Your task to perform on an android device: toggle priority inbox in the gmail app Image 0: 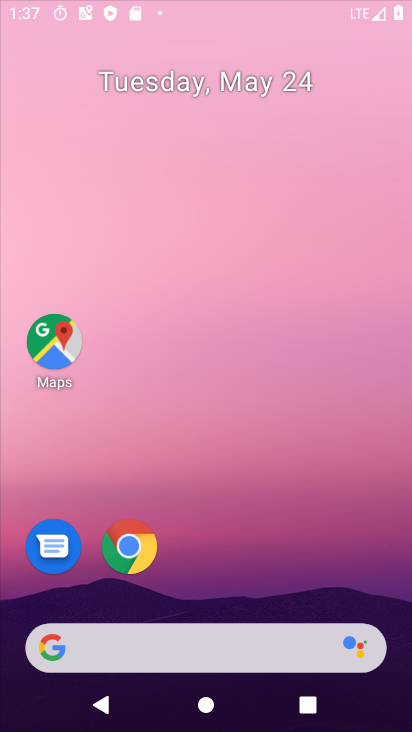
Step 0: drag from (258, 464) to (298, 226)
Your task to perform on an android device: toggle priority inbox in the gmail app Image 1: 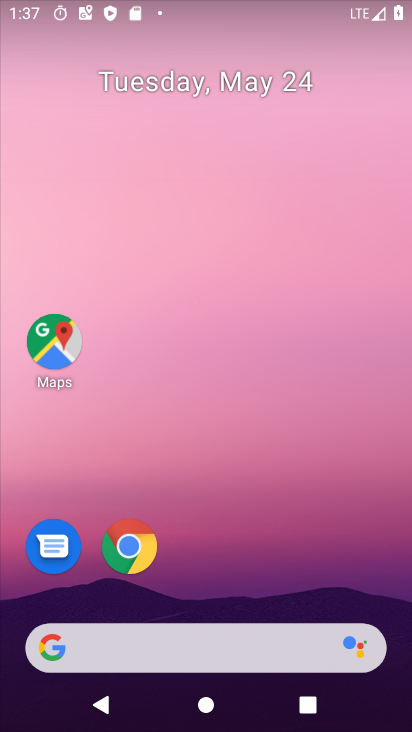
Step 1: drag from (218, 586) to (398, 31)
Your task to perform on an android device: toggle priority inbox in the gmail app Image 2: 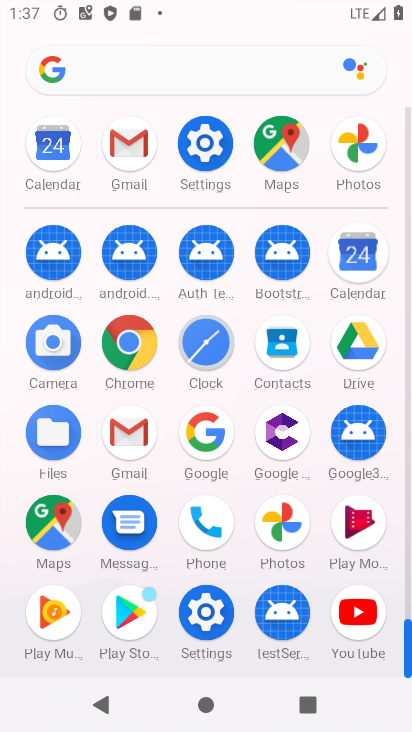
Step 2: click (147, 437)
Your task to perform on an android device: toggle priority inbox in the gmail app Image 3: 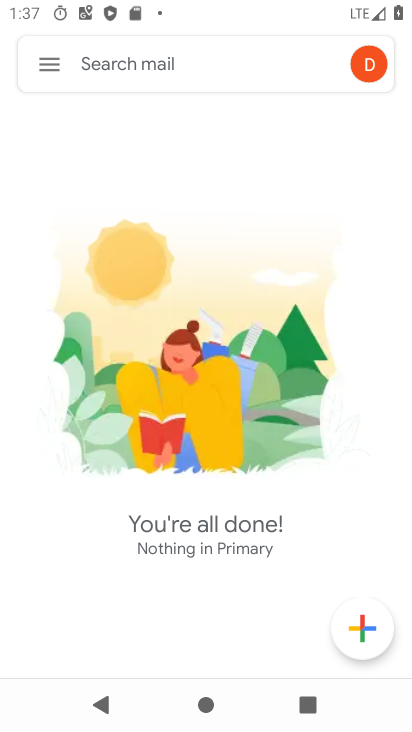
Step 3: click (32, 72)
Your task to perform on an android device: toggle priority inbox in the gmail app Image 4: 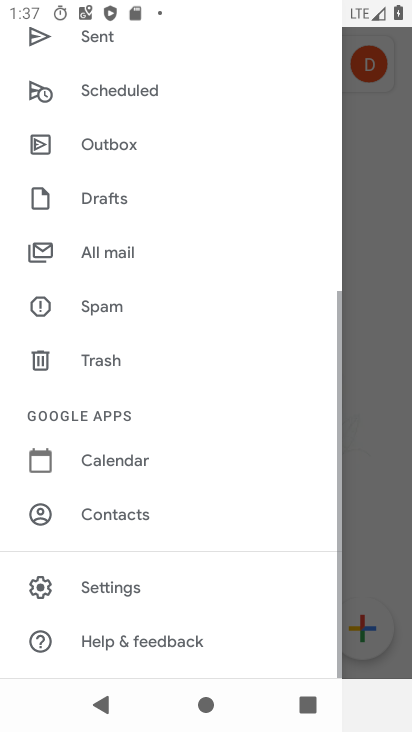
Step 4: drag from (130, 498) to (153, 109)
Your task to perform on an android device: toggle priority inbox in the gmail app Image 5: 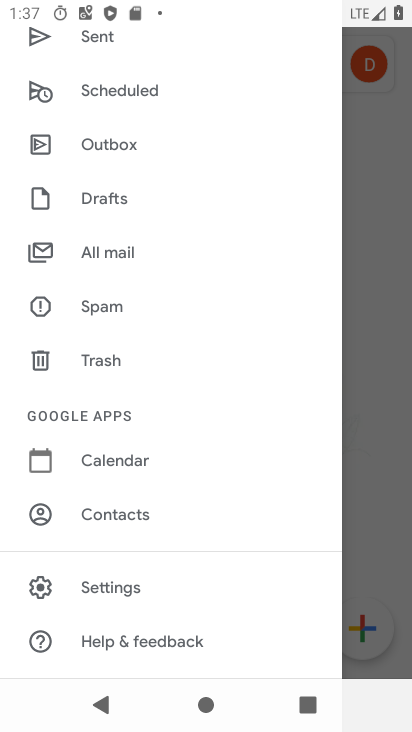
Step 5: drag from (163, 577) to (220, 148)
Your task to perform on an android device: toggle priority inbox in the gmail app Image 6: 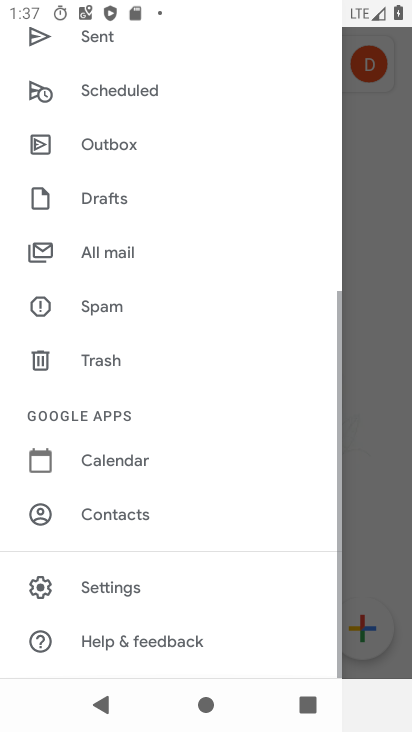
Step 6: drag from (213, 164) to (288, 671)
Your task to perform on an android device: toggle priority inbox in the gmail app Image 7: 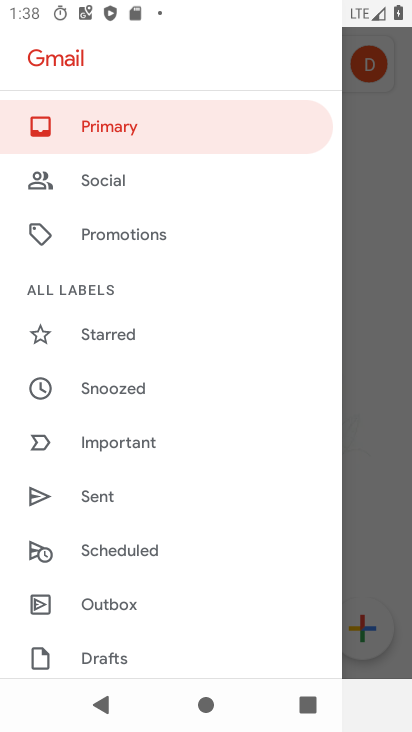
Step 7: drag from (171, 681) to (290, 6)
Your task to perform on an android device: toggle priority inbox in the gmail app Image 8: 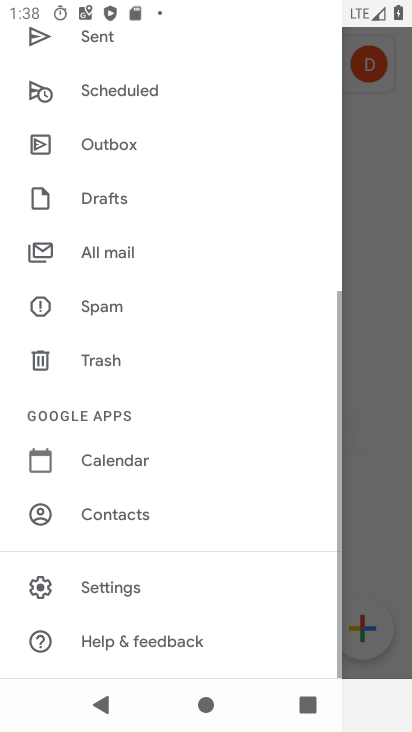
Step 8: click (97, 592)
Your task to perform on an android device: toggle priority inbox in the gmail app Image 9: 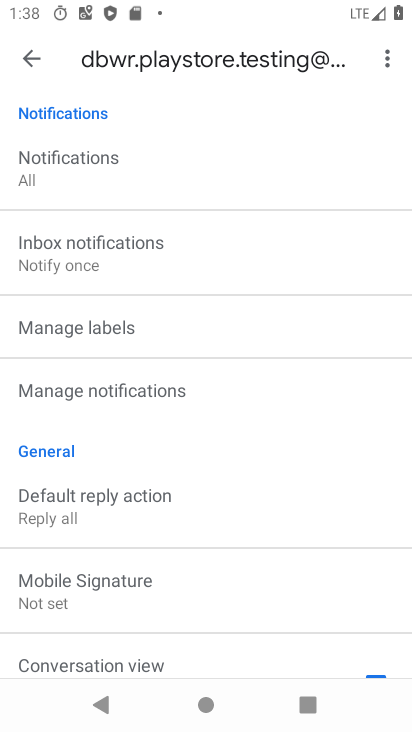
Step 9: drag from (142, 284) to (169, 584)
Your task to perform on an android device: toggle priority inbox in the gmail app Image 10: 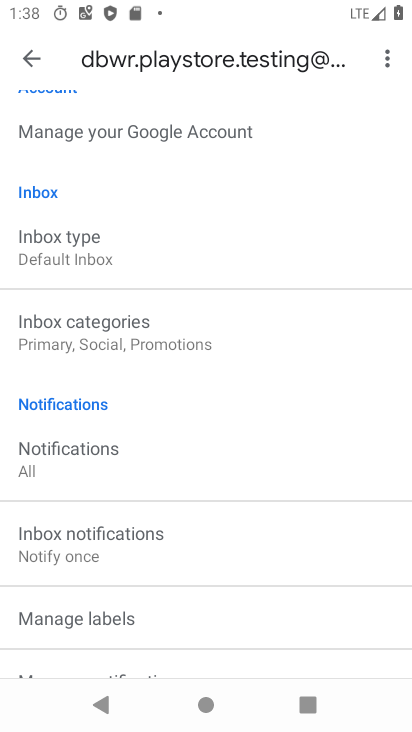
Step 10: click (97, 252)
Your task to perform on an android device: toggle priority inbox in the gmail app Image 11: 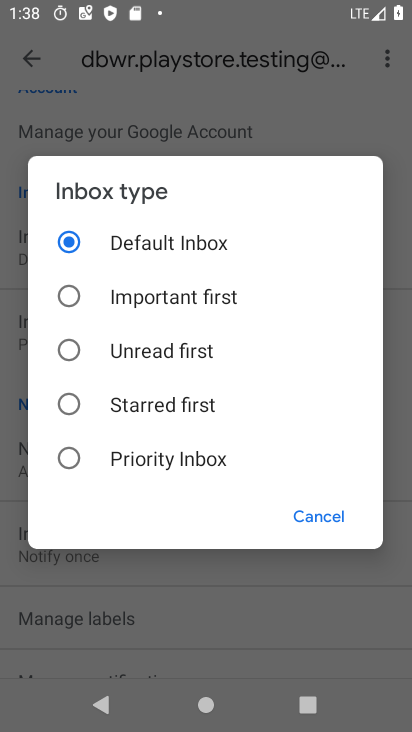
Step 11: click (112, 462)
Your task to perform on an android device: toggle priority inbox in the gmail app Image 12: 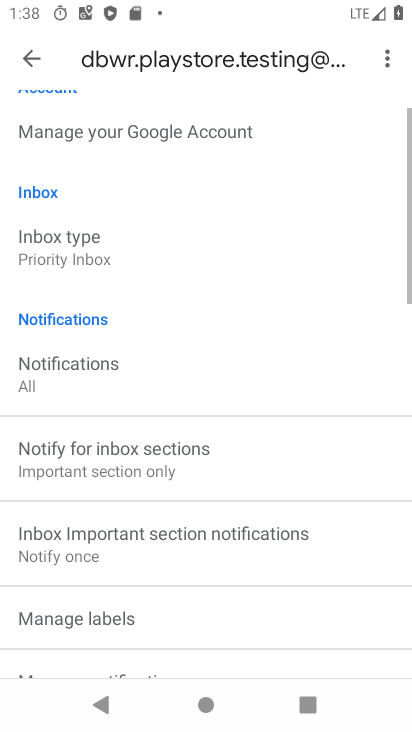
Step 12: task complete